Your task to perform on an android device: toggle pop-ups in chrome Image 0: 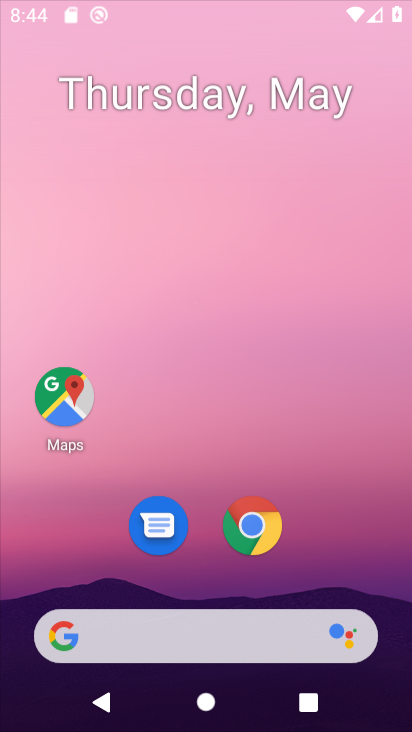
Step 0: drag from (231, 141) to (243, 36)
Your task to perform on an android device: toggle pop-ups in chrome Image 1: 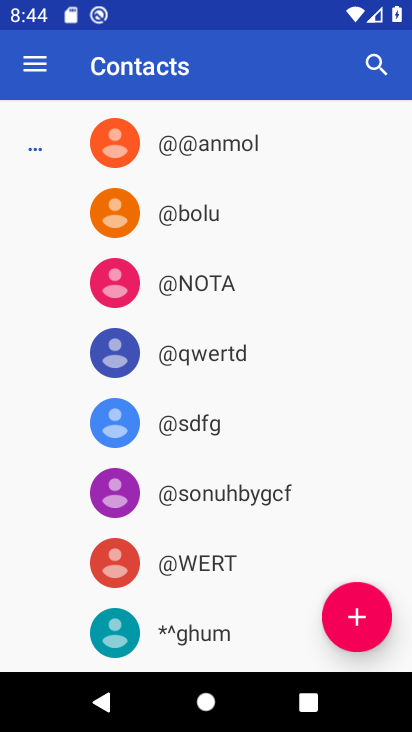
Step 1: press home button
Your task to perform on an android device: toggle pop-ups in chrome Image 2: 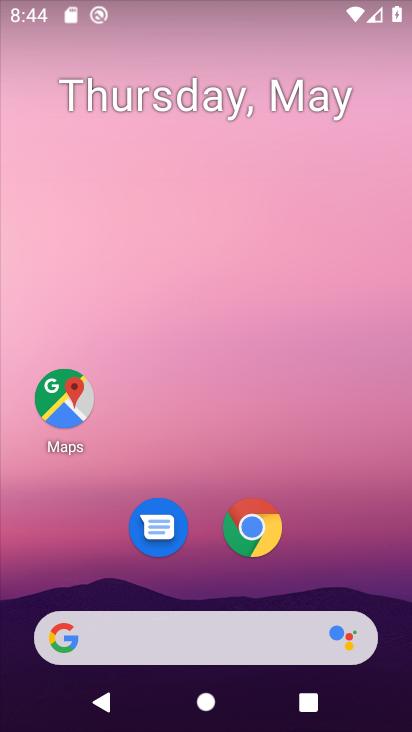
Step 2: drag from (164, 576) to (170, 1)
Your task to perform on an android device: toggle pop-ups in chrome Image 3: 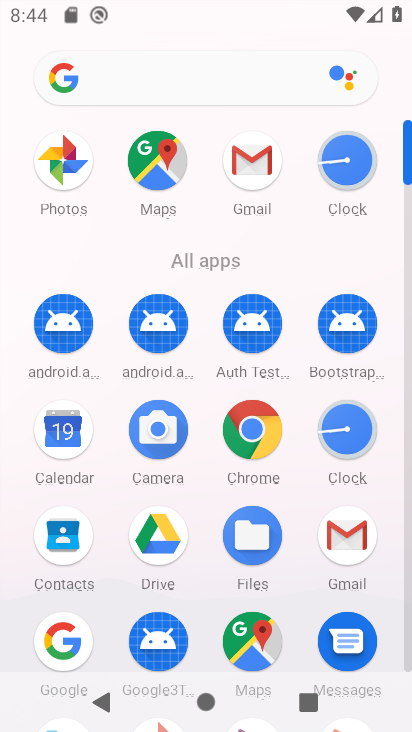
Step 3: drag from (278, 579) to (268, 235)
Your task to perform on an android device: toggle pop-ups in chrome Image 4: 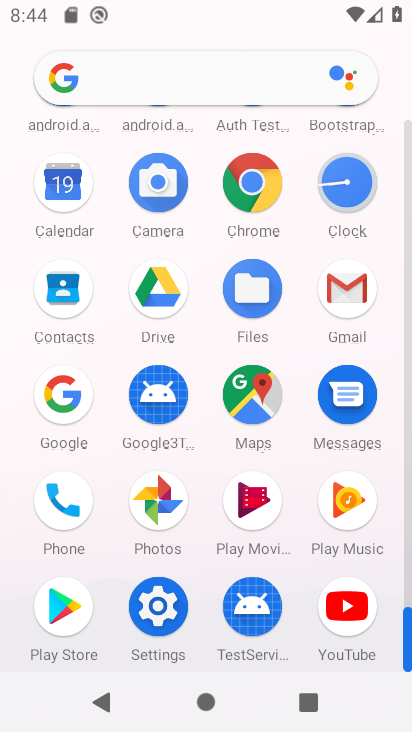
Step 4: click (149, 625)
Your task to perform on an android device: toggle pop-ups in chrome Image 5: 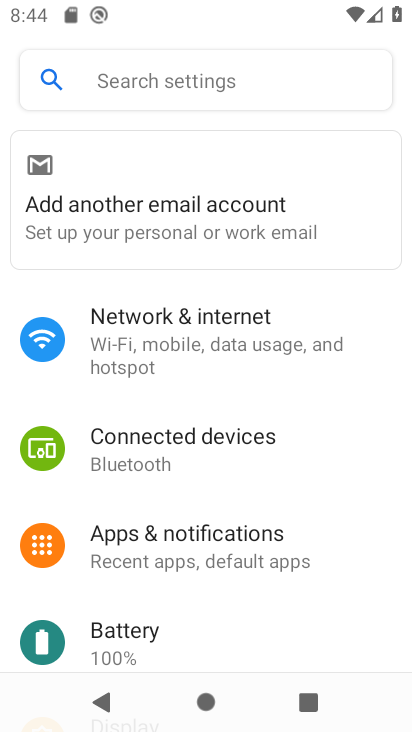
Step 5: click (147, 625)
Your task to perform on an android device: toggle pop-ups in chrome Image 6: 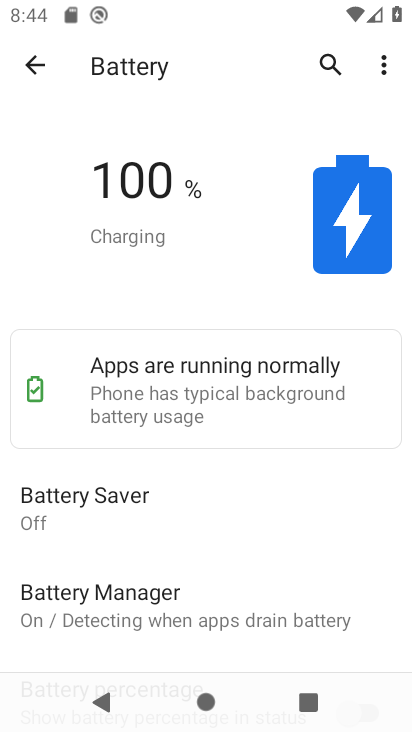
Step 6: task complete